Your task to perform on an android device: Go to sound settings Image 0: 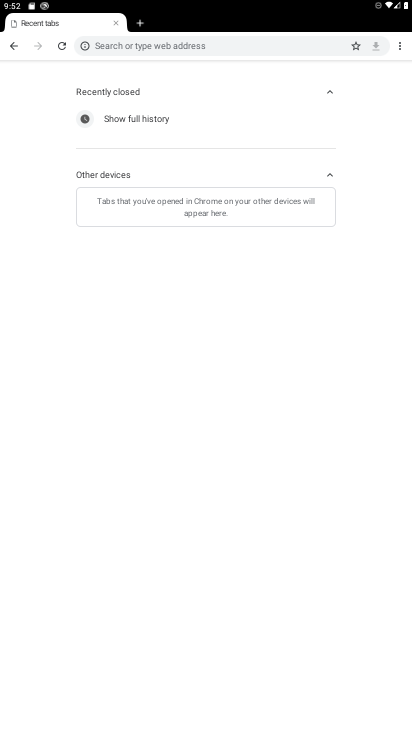
Step 0: drag from (226, 6) to (264, 342)
Your task to perform on an android device: Go to sound settings Image 1: 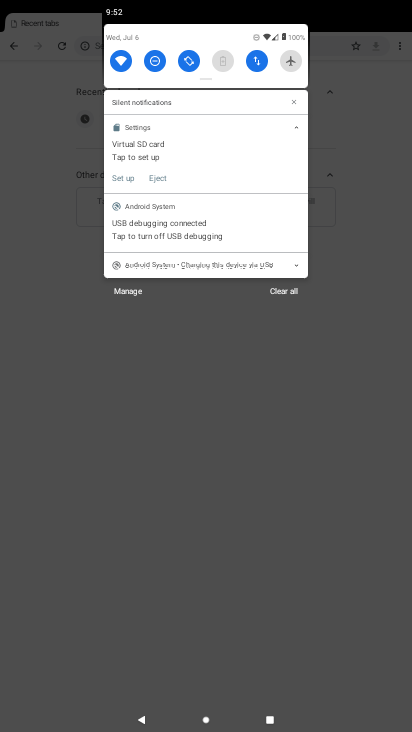
Step 1: drag from (227, 33) to (286, 272)
Your task to perform on an android device: Go to sound settings Image 2: 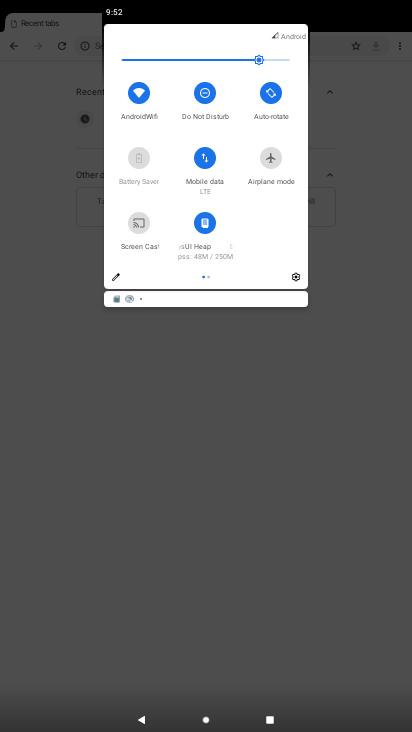
Step 2: click (293, 282)
Your task to perform on an android device: Go to sound settings Image 3: 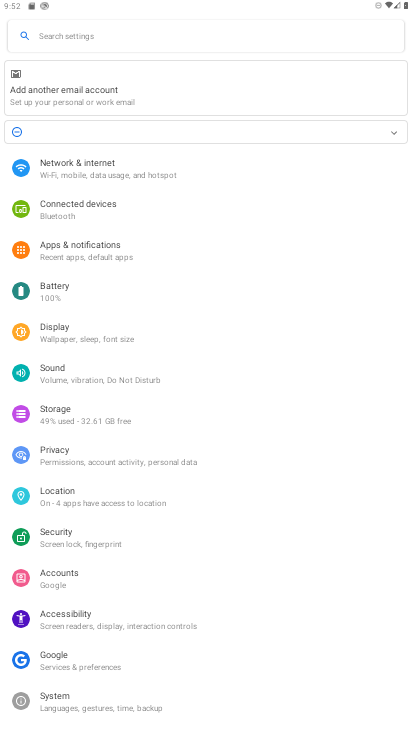
Step 3: click (102, 381)
Your task to perform on an android device: Go to sound settings Image 4: 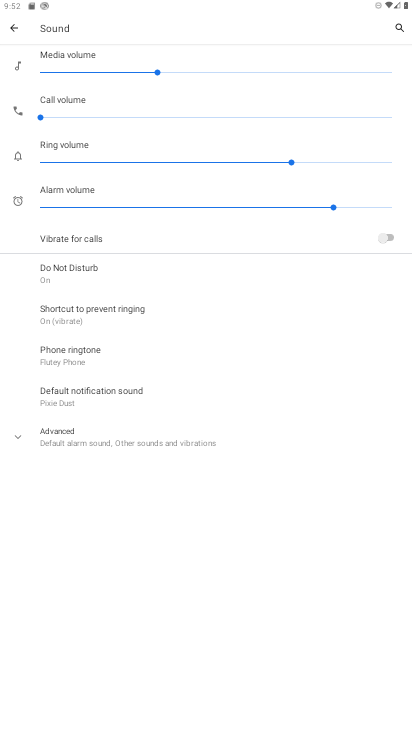
Step 4: task complete